Your task to perform on an android device: Go to Amazon Image 0: 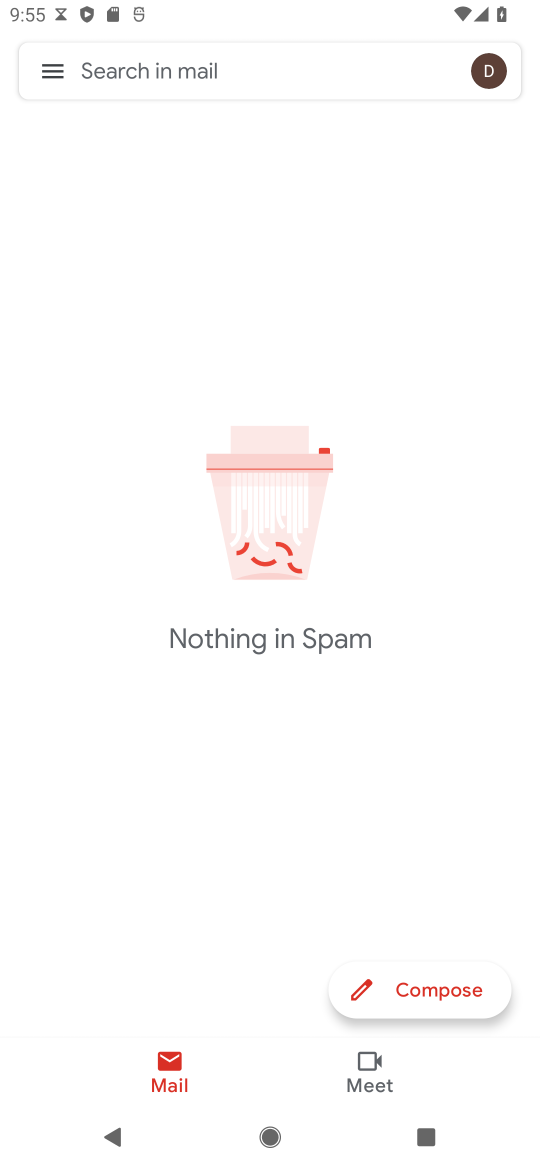
Step 0: press home button
Your task to perform on an android device: Go to Amazon Image 1: 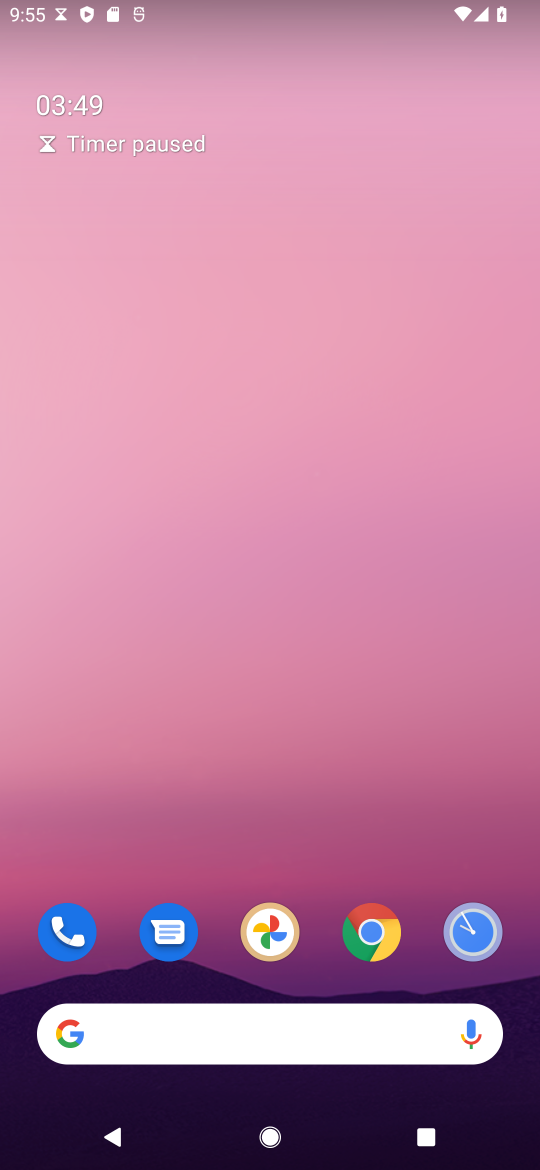
Step 1: click (378, 933)
Your task to perform on an android device: Go to Amazon Image 2: 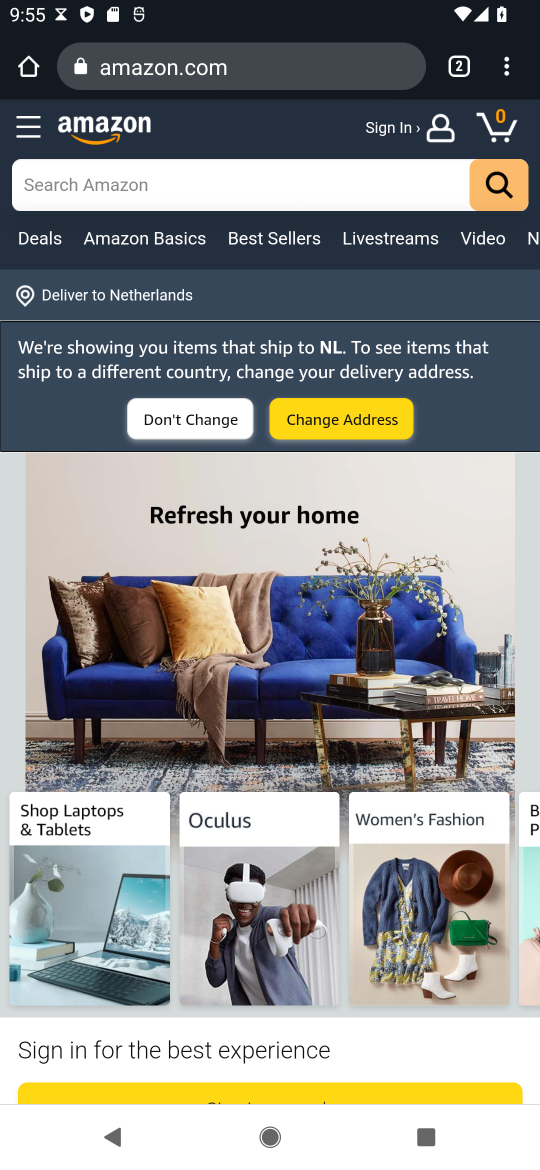
Step 2: click (360, 81)
Your task to perform on an android device: Go to Amazon Image 3: 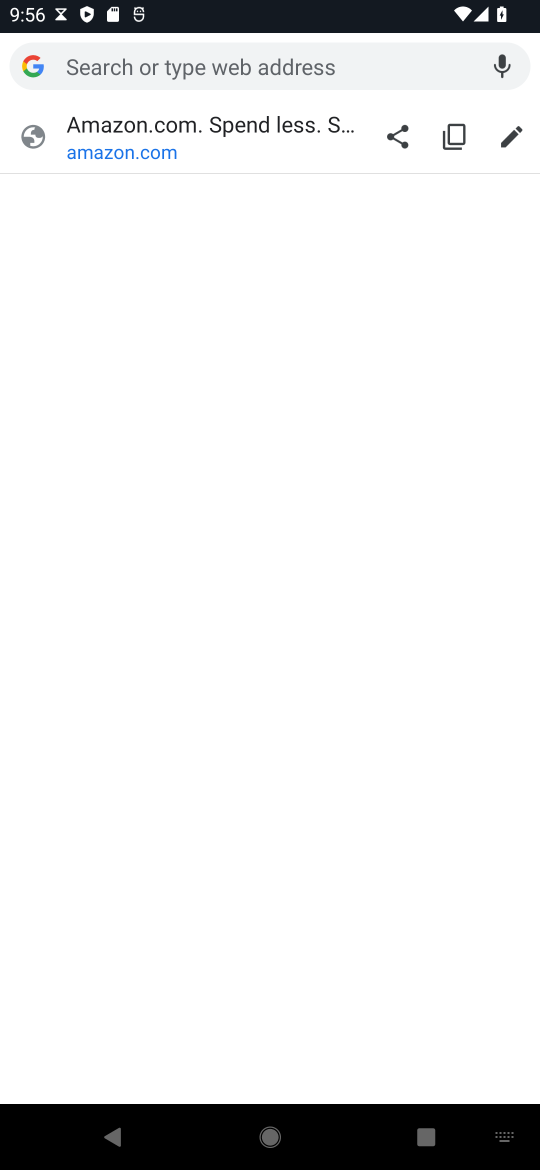
Step 3: type "Amazon"
Your task to perform on an android device: Go to Amazon Image 4: 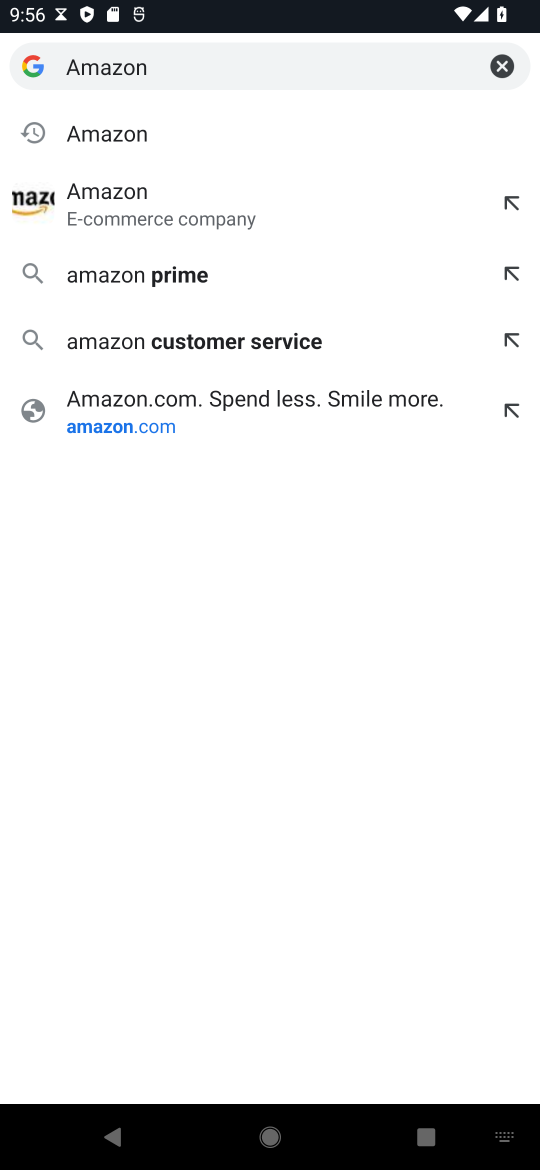
Step 4: click (145, 233)
Your task to perform on an android device: Go to Amazon Image 5: 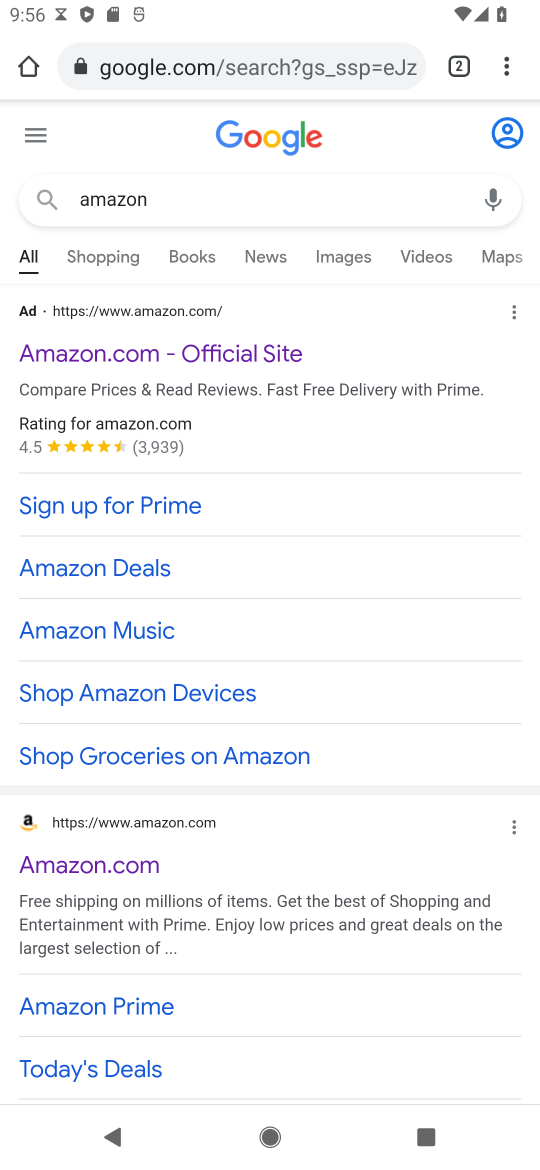
Step 5: drag from (207, 842) to (340, 617)
Your task to perform on an android device: Go to Amazon Image 6: 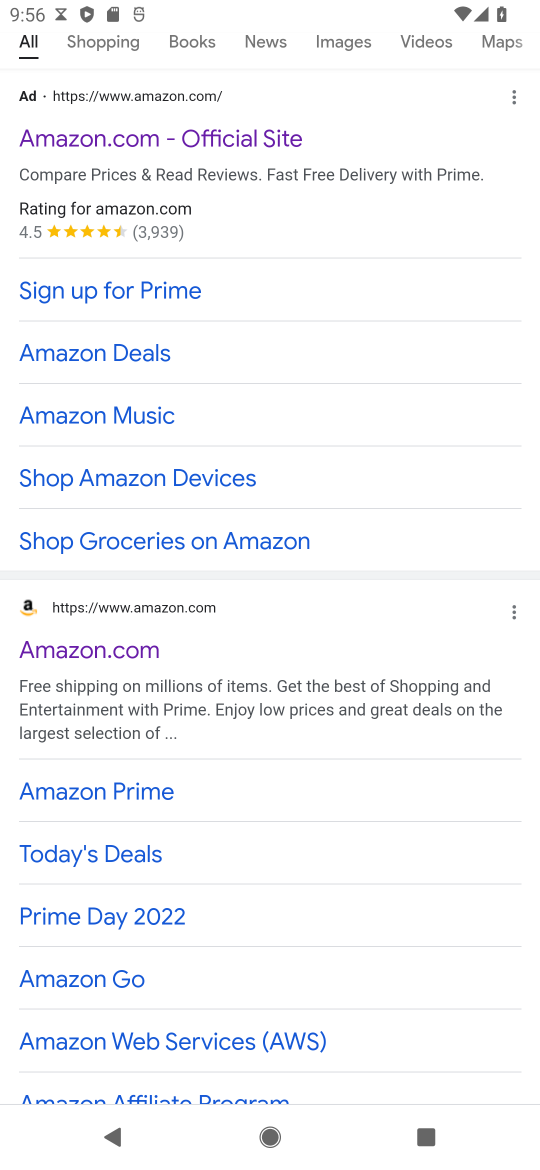
Step 6: click (121, 667)
Your task to perform on an android device: Go to Amazon Image 7: 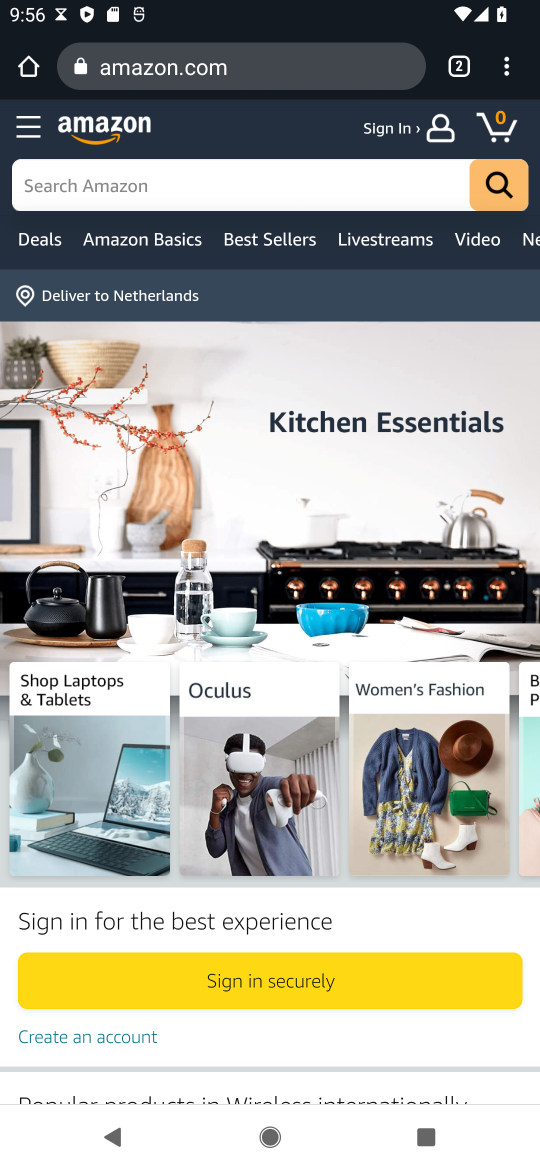
Step 7: task complete